Your task to perform on an android device: Play the last video I watched on Youtube Image 0: 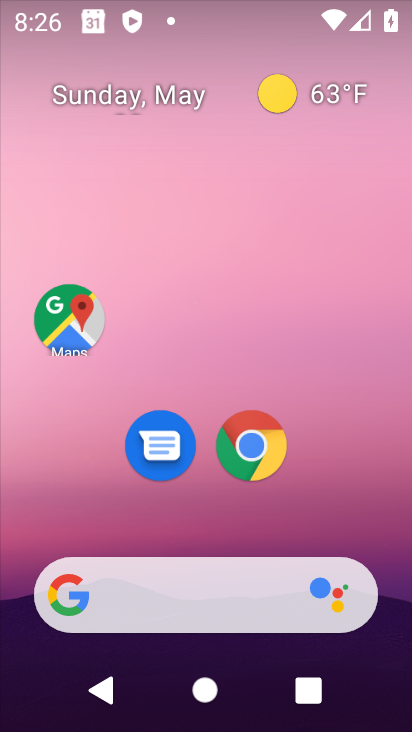
Step 0: drag from (360, 522) to (380, 139)
Your task to perform on an android device: Play the last video I watched on Youtube Image 1: 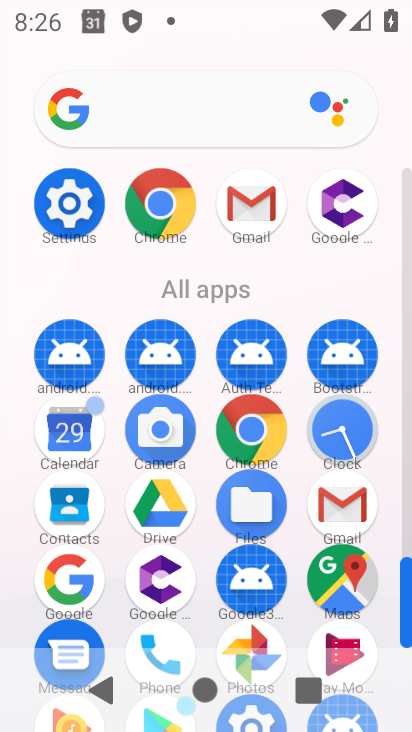
Step 1: drag from (388, 530) to (404, 241)
Your task to perform on an android device: Play the last video I watched on Youtube Image 2: 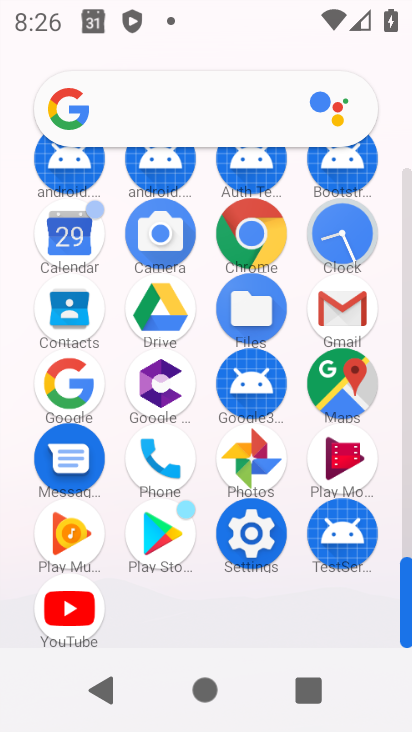
Step 2: click (51, 619)
Your task to perform on an android device: Play the last video I watched on Youtube Image 3: 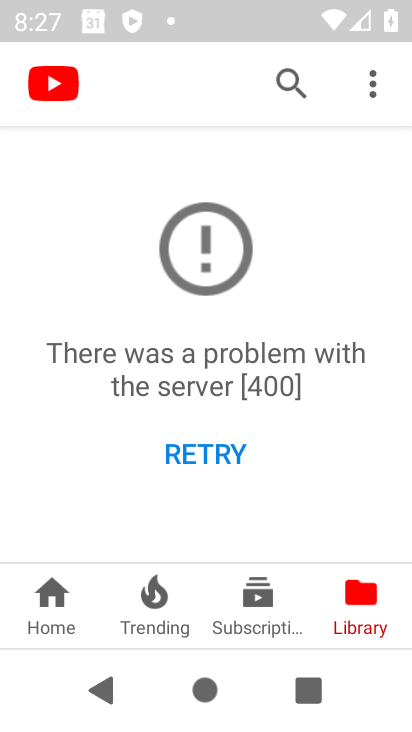
Step 3: click (20, 617)
Your task to perform on an android device: Play the last video I watched on Youtube Image 4: 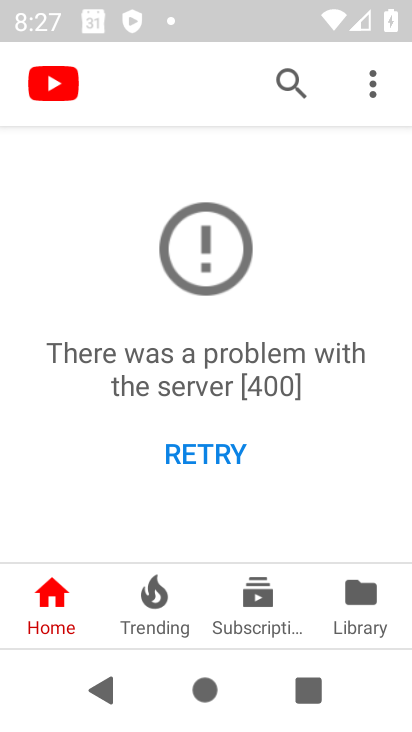
Step 4: task complete